Your task to perform on an android device: create a new album in the google photos Image 0: 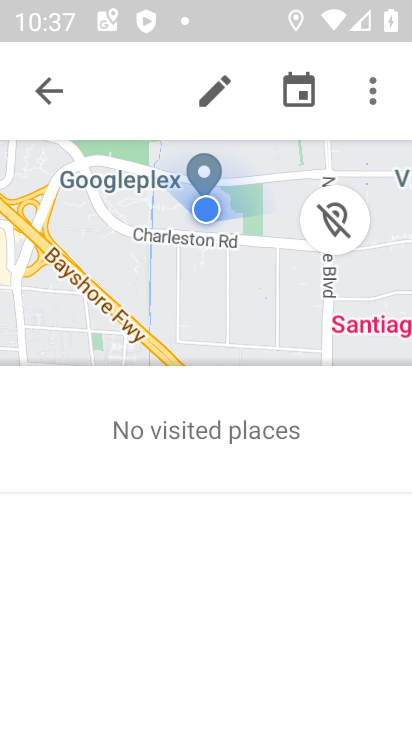
Step 0: press home button
Your task to perform on an android device: create a new album in the google photos Image 1: 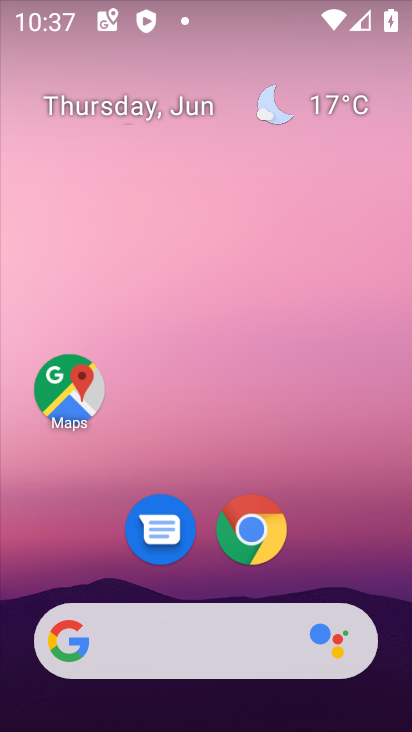
Step 1: drag from (339, 567) to (335, 32)
Your task to perform on an android device: create a new album in the google photos Image 2: 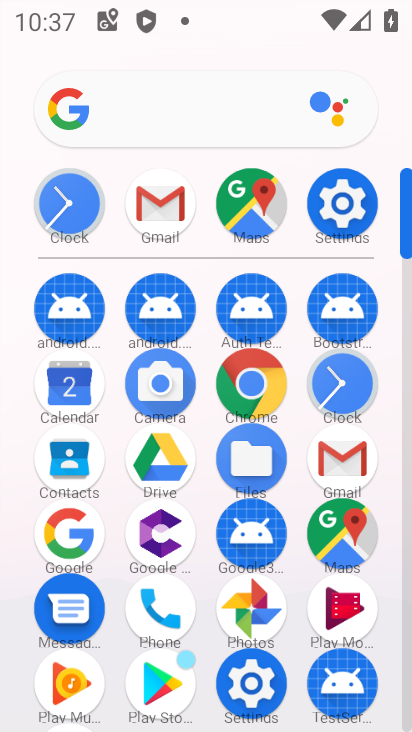
Step 2: click (245, 600)
Your task to perform on an android device: create a new album in the google photos Image 3: 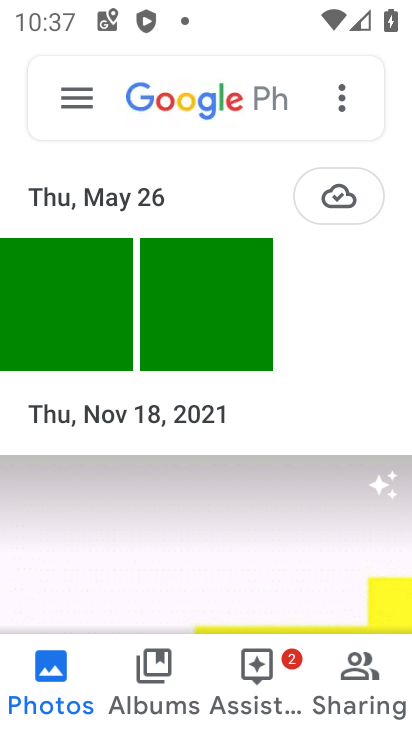
Step 3: click (138, 711)
Your task to perform on an android device: create a new album in the google photos Image 4: 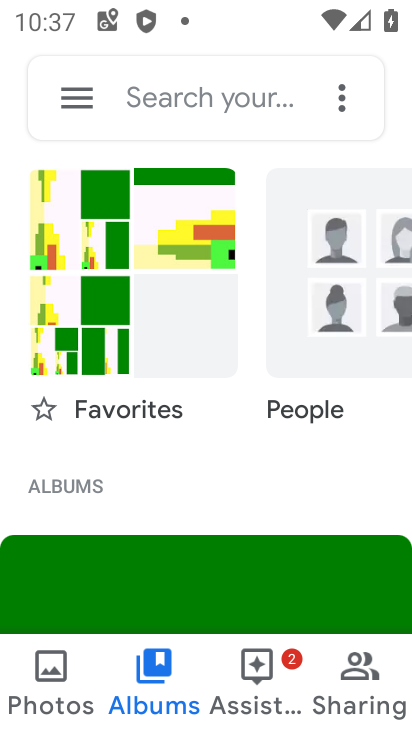
Step 4: click (342, 92)
Your task to perform on an android device: create a new album in the google photos Image 5: 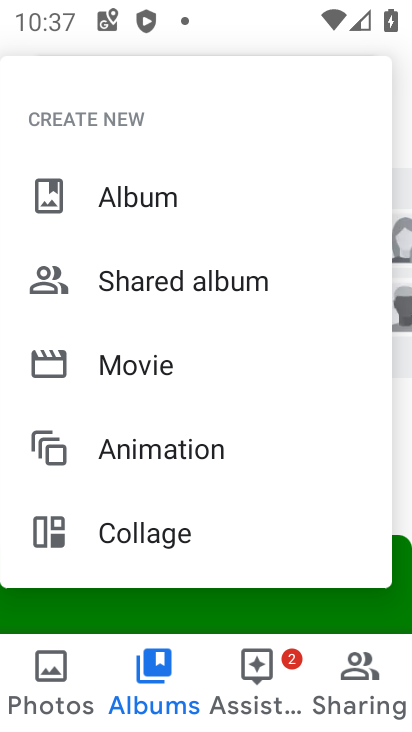
Step 5: click (151, 207)
Your task to perform on an android device: create a new album in the google photos Image 6: 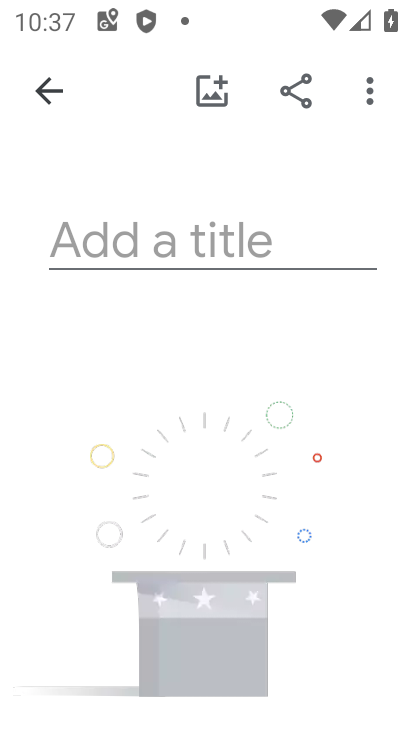
Step 6: click (213, 217)
Your task to perform on an android device: create a new album in the google photos Image 7: 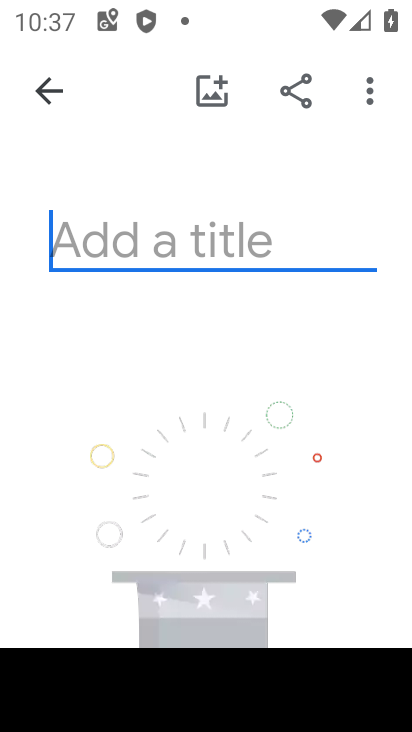
Step 7: type "trewqasdf"
Your task to perform on an android device: create a new album in the google photos Image 8: 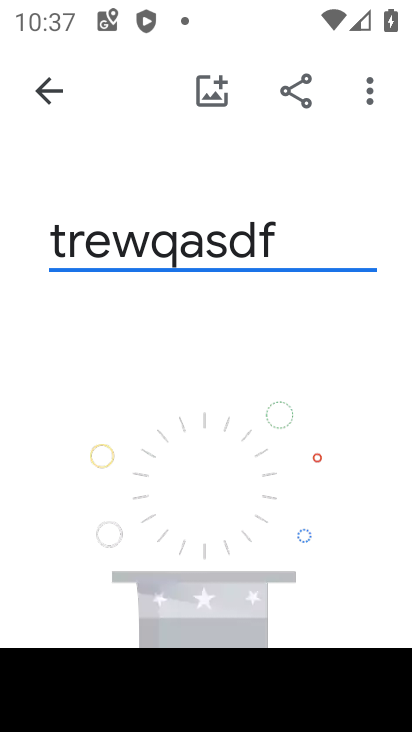
Step 8: click (192, 62)
Your task to perform on an android device: create a new album in the google photos Image 9: 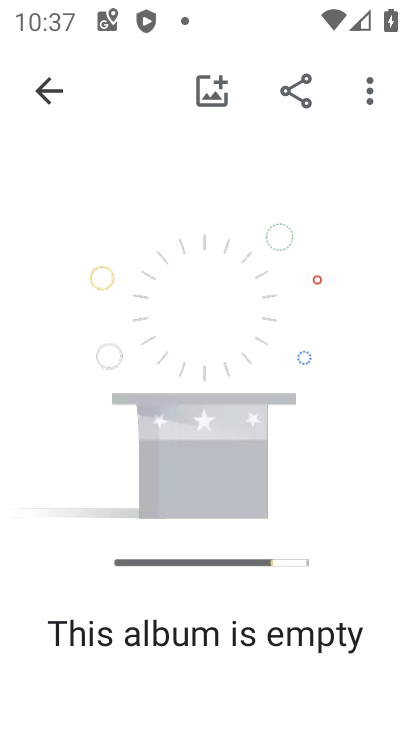
Step 9: click (214, 104)
Your task to perform on an android device: create a new album in the google photos Image 10: 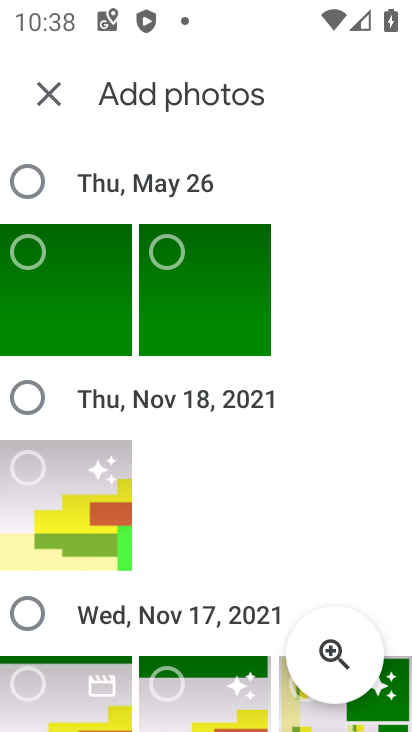
Step 10: click (113, 291)
Your task to perform on an android device: create a new album in the google photos Image 11: 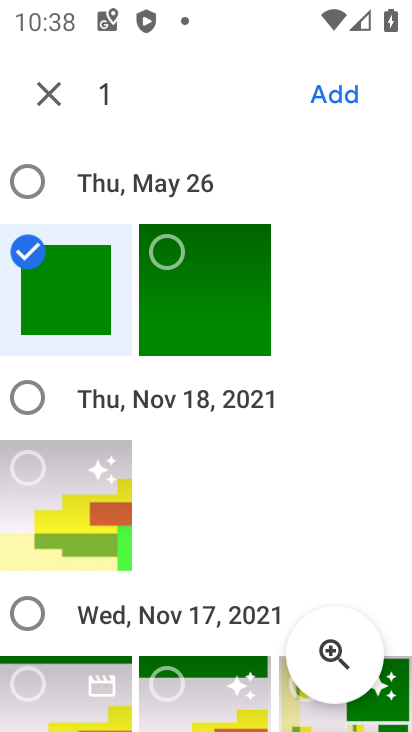
Step 11: click (329, 83)
Your task to perform on an android device: create a new album in the google photos Image 12: 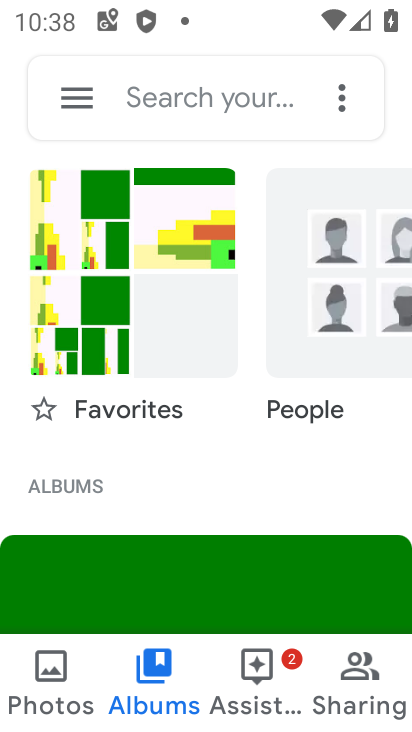
Step 12: click (344, 94)
Your task to perform on an android device: create a new album in the google photos Image 13: 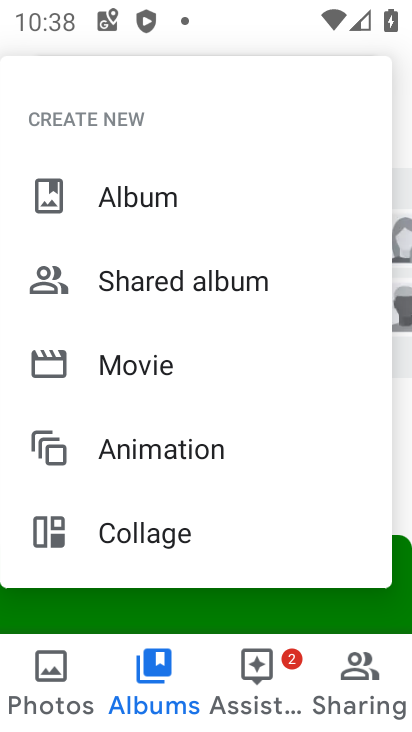
Step 13: click (172, 186)
Your task to perform on an android device: create a new album in the google photos Image 14: 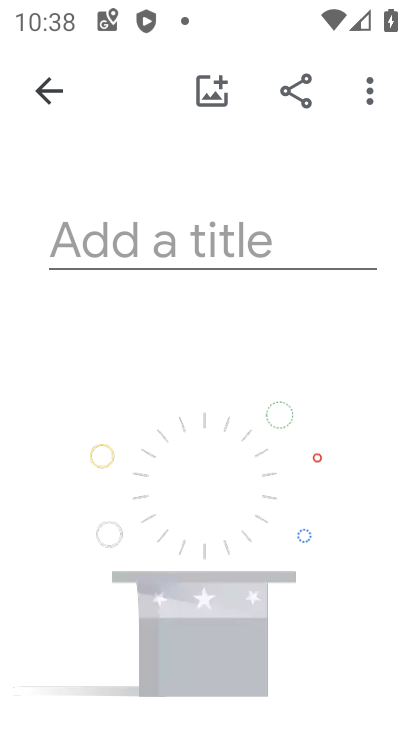
Step 14: click (238, 243)
Your task to perform on an android device: create a new album in the google photos Image 15: 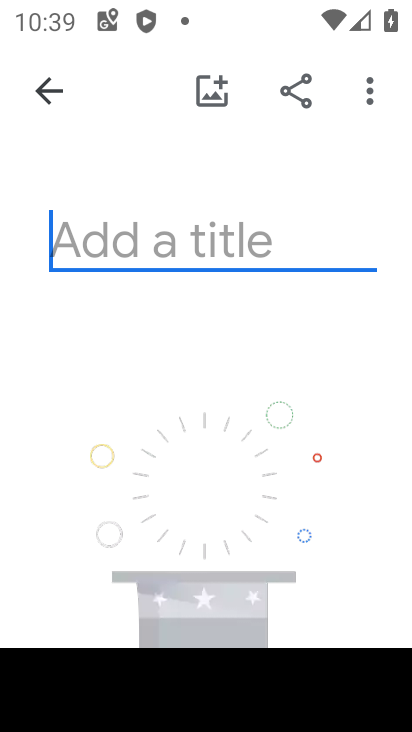
Step 15: type "mkoijnbhu"
Your task to perform on an android device: create a new album in the google photos Image 16: 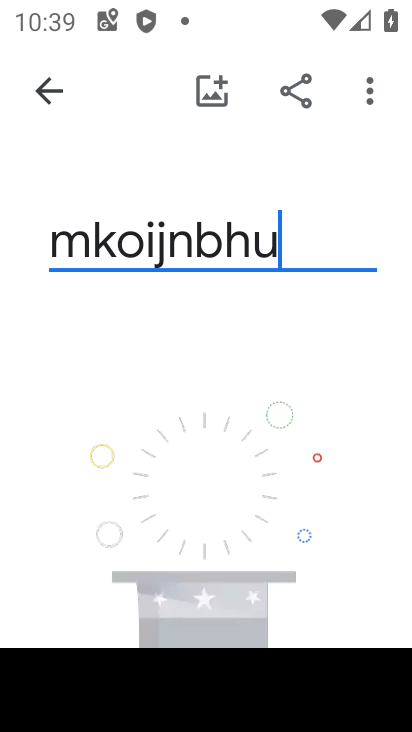
Step 16: click (200, 96)
Your task to perform on an android device: create a new album in the google photos Image 17: 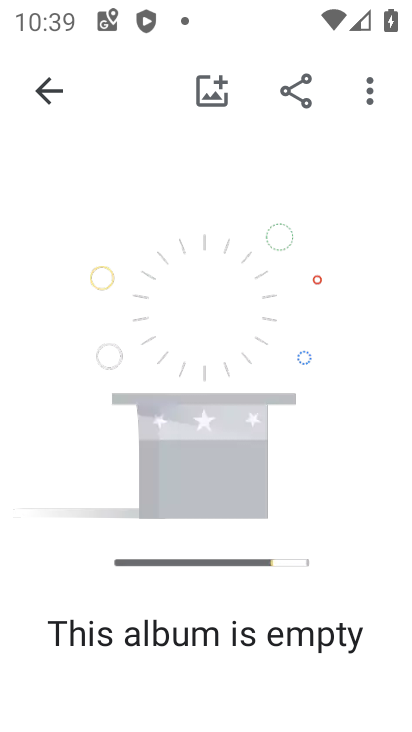
Step 17: click (214, 90)
Your task to perform on an android device: create a new album in the google photos Image 18: 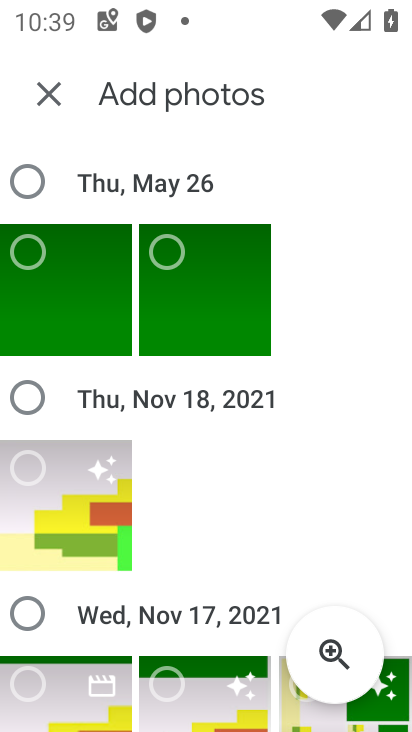
Step 18: drag from (143, 323) to (159, 382)
Your task to perform on an android device: create a new album in the google photos Image 19: 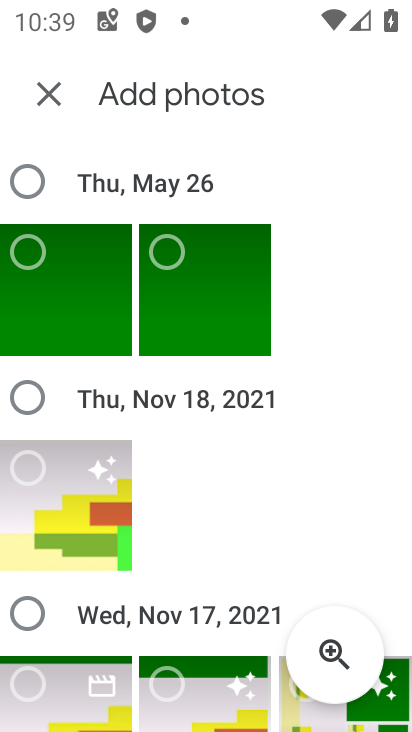
Step 19: click (134, 346)
Your task to perform on an android device: create a new album in the google photos Image 20: 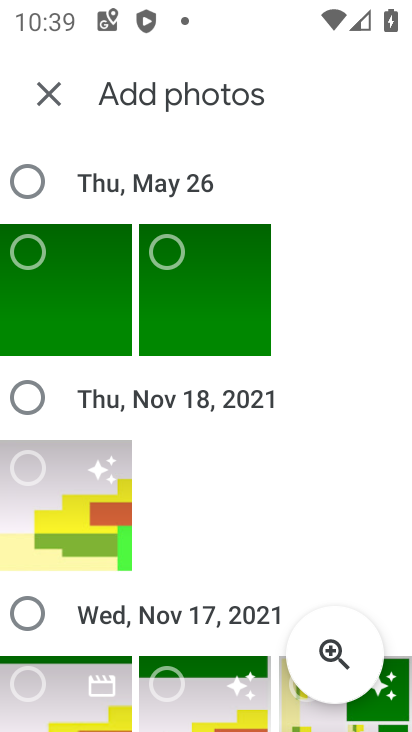
Step 20: click (80, 284)
Your task to perform on an android device: create a new album in the google photos Image 21: 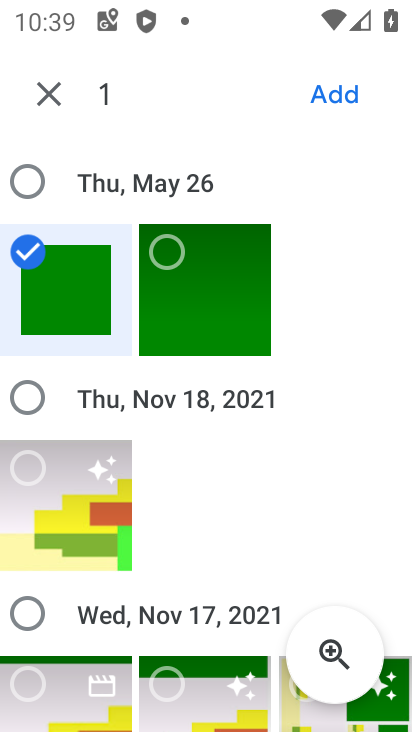
Step 21: click (347, 100)
Your task to perform on an android device: create a new album in the google photos Image 22: 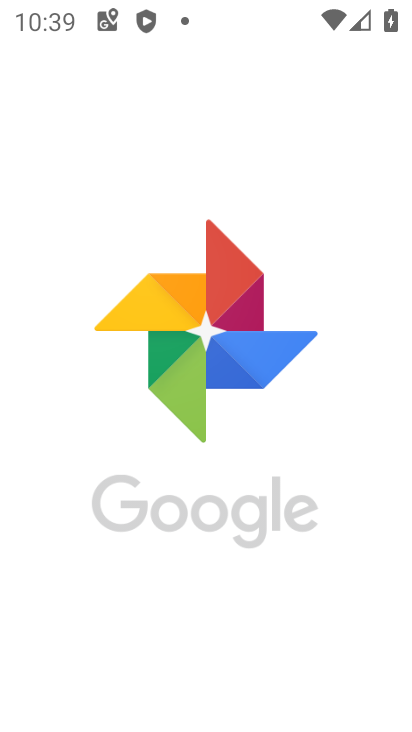
Step 22: task complete